Your task to perform on an android device: add a contact Image 0: 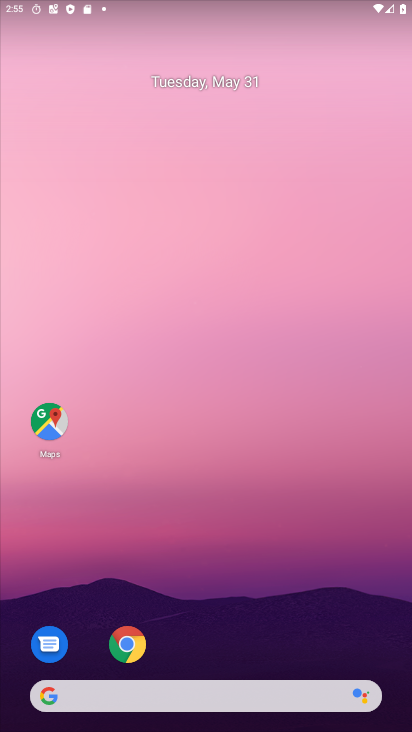
Step 0: drag from (382, 713) to (383, 627)
Your task to perform on an android device: add a contact Image 1: 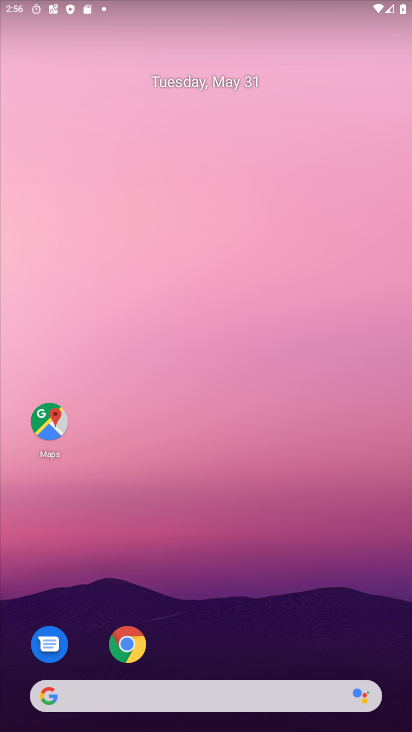
Step 1: drag from (402, 723) to (410, 242)
Your task to perform on an android device: add a contact Image 2: 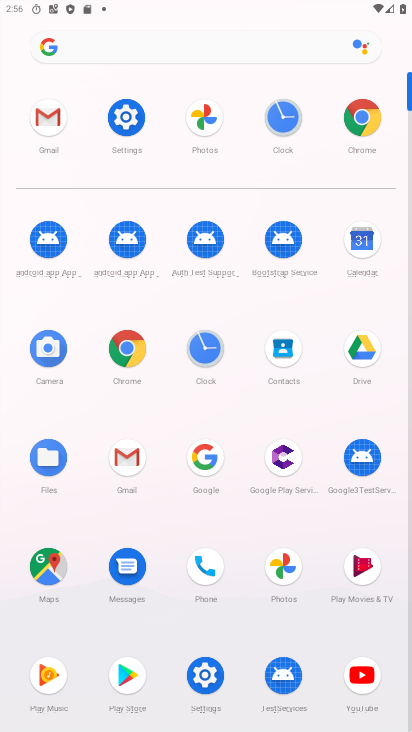
Step 2: click (285, 347)
Your task to perform on an android device: add a contact Image 3: 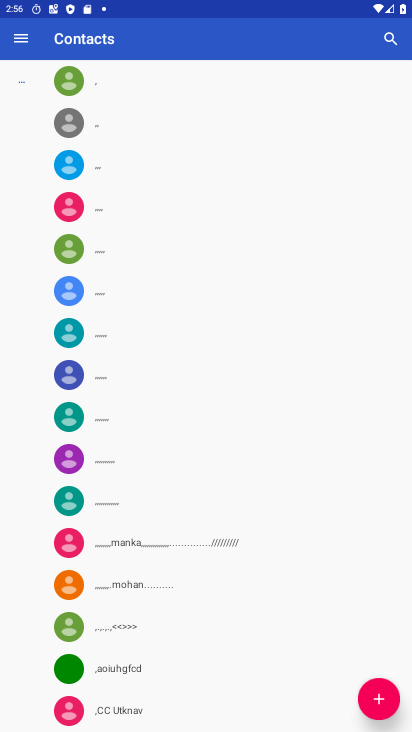
Step 3: click (373, 704)
Your task to perform on an android device: add a contact Image 4: 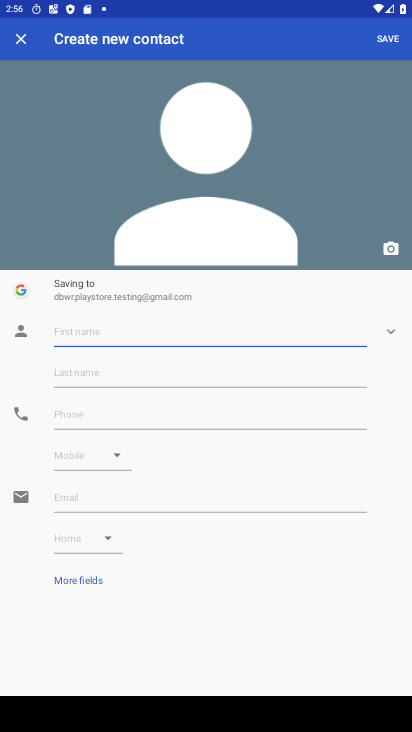
Step 4: type "cyccygg"
Your task to perform on an android device: add a contact Image 5: 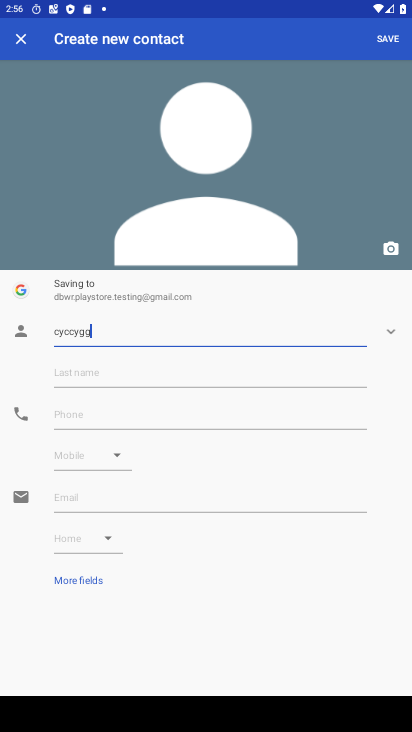
Step 5: click (105, 379)
Your task to perform on an android device: add a contact Image 6: 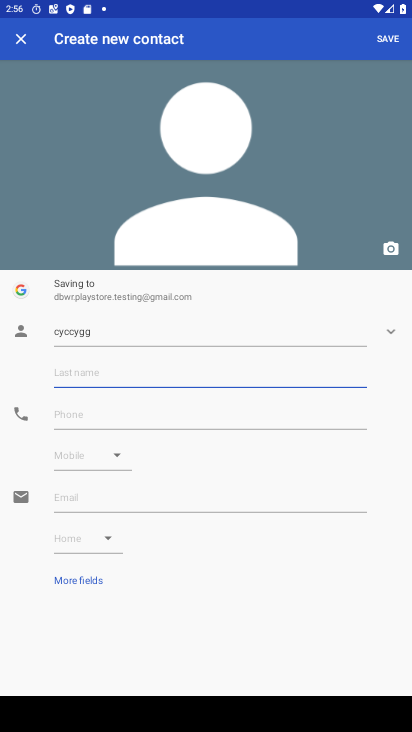
Step 6: type "tvvtvtuv"
Your task to perform on an android device: add a contact Image 7: 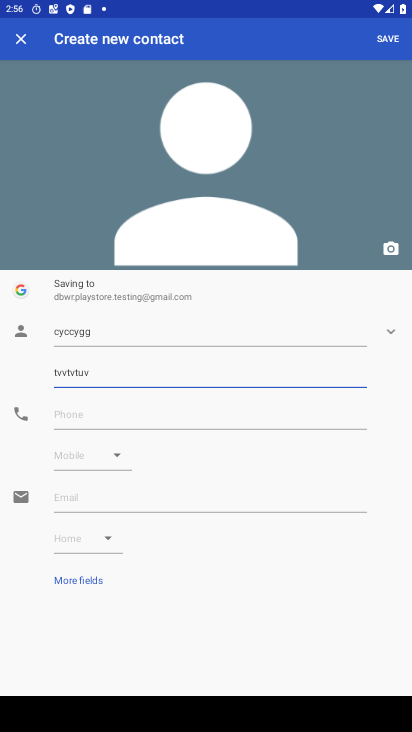
Step 7: click (109, 423)
Your task to perform on an android device: add a contact Image 8: 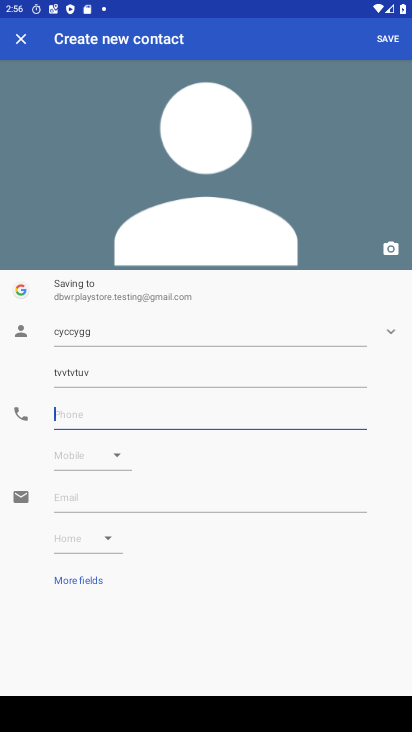
Step 8: click (43, 411)
Your task to perform on an android device: add a contact Image 9: 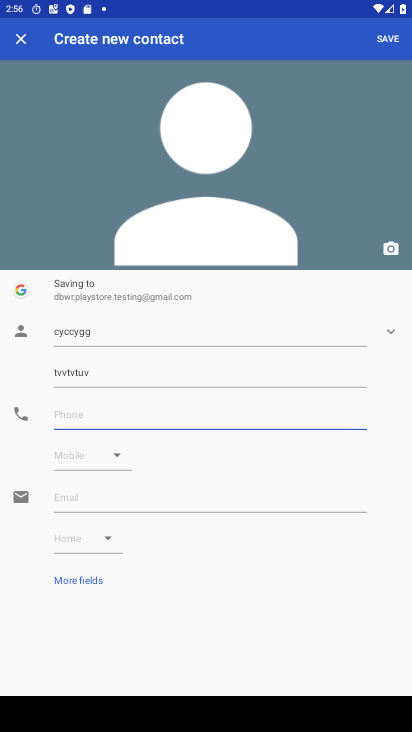
Step 9: type "5544554545677"
Your task to perform on an android device: add a contact Image 10: 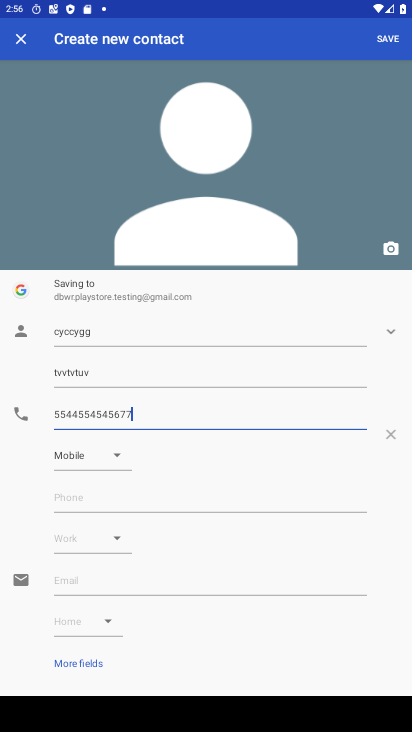
Step 10: click (378, 35)
Your task to perform on an android device: add a contact Image 11: 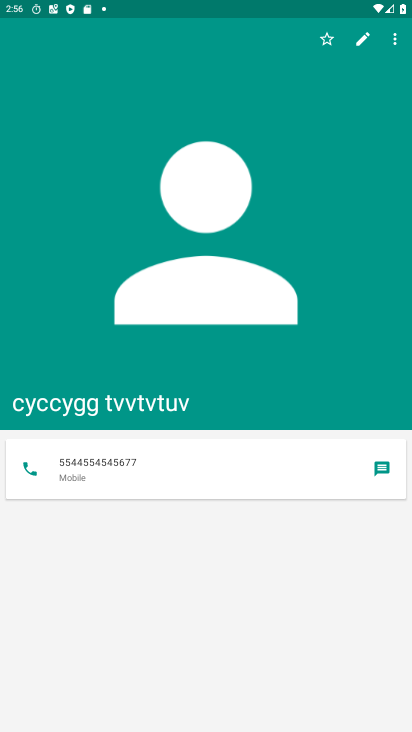
Step 11: task complete